Your task to perform on an android device: add a label to a message in the gmail app Image 0: 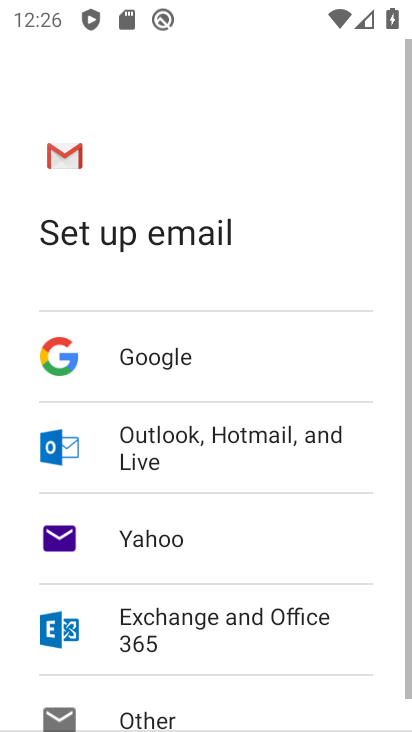
Step 0: press home button
Your task to perform on an android device: add a label to a message in the gmail app Image 1: 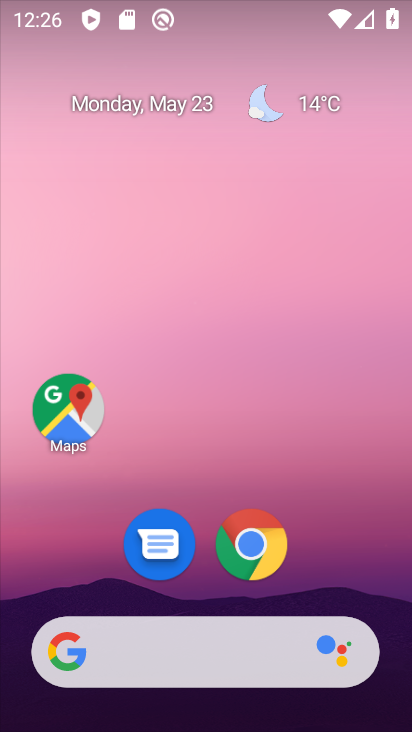
Step 1: drag from (305, 496) to (303, 133)
Your task to perform on an android device: add a label to a message in the gmail app Image 2: 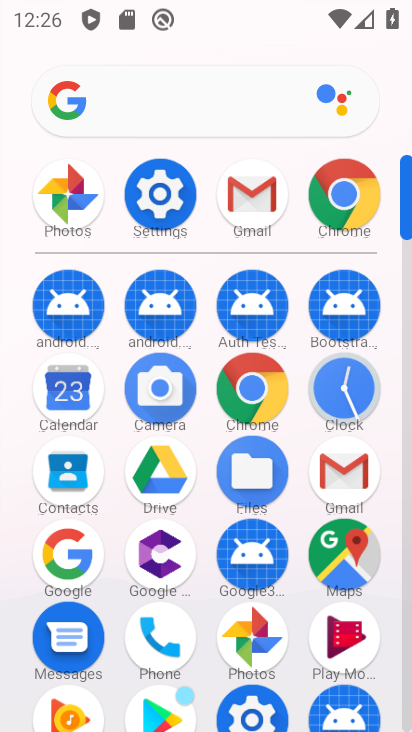
Step 2: click (269, 208)
Your task to perform on an android device: add a label to a message in the gmail app Image 3: 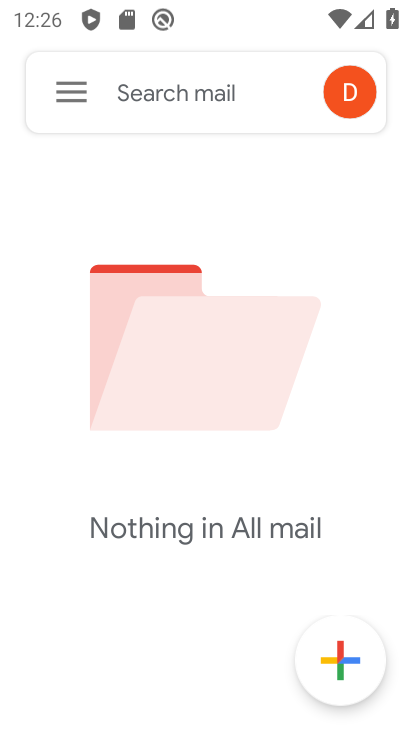
Step 3: click (58, 85)
Your task to perform on an android device: add a label to a message in the gmail app Image 4: 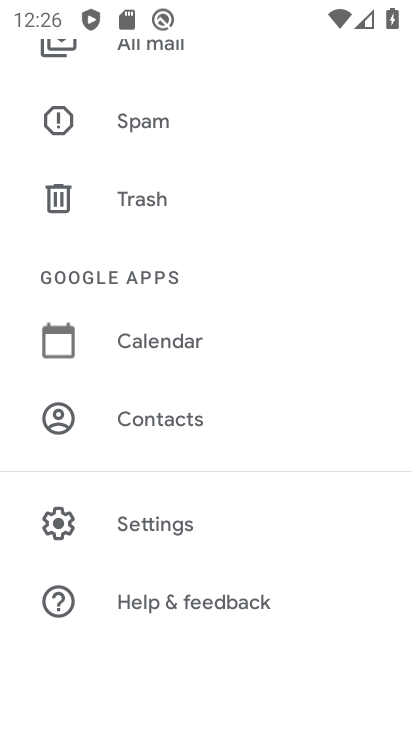
Step 4: drag from (163, 149) to (165, 506)
Your task to perform on an android device: add a label to a message in the gmail app Image 5: 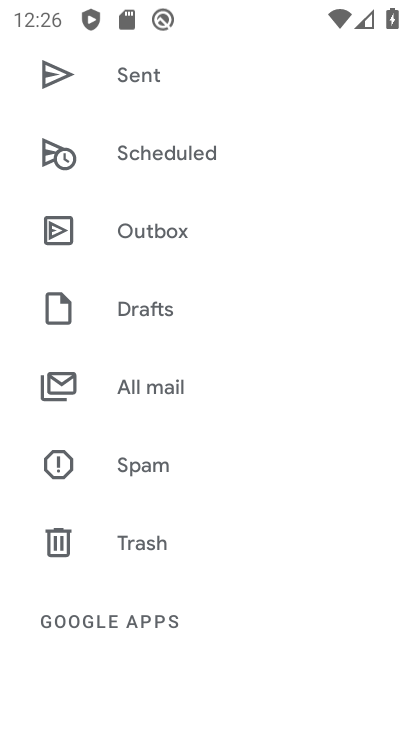
Step 5: click (151, 379)
Your task to perform on an android device: add a label to a message in the gmail app Image 6: 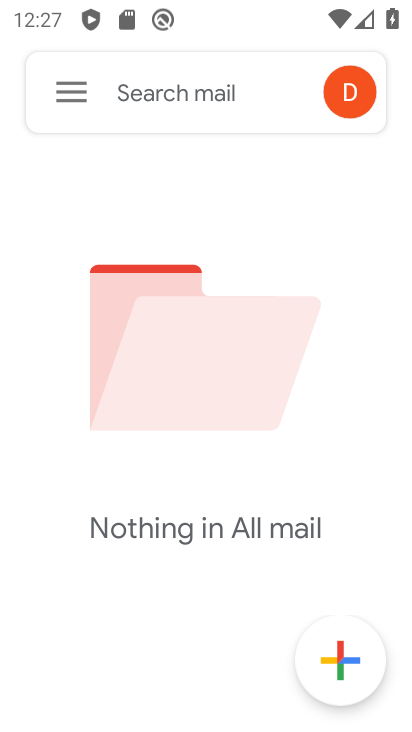
Step 6: task complete